Your task to perform on an android device: open wifi settings Image 0: 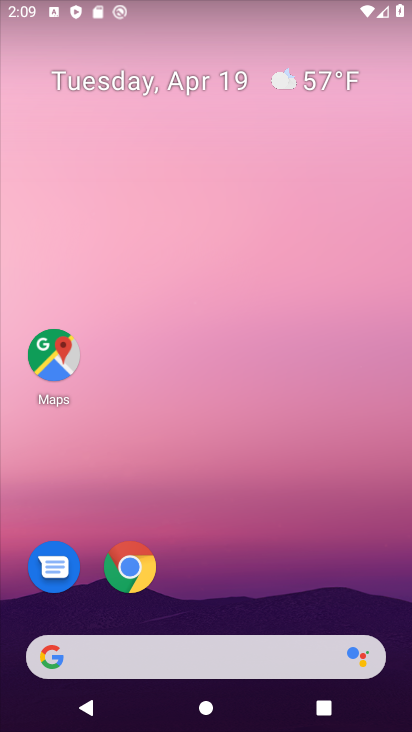
Step 0: drag from (342, 591) to (307, 70)
Your task to perform on an android device: open wifi settings Image 1: 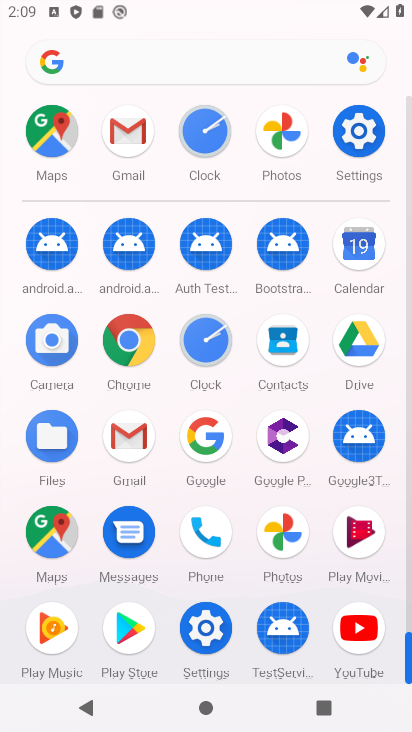
Step 1: click (205, 627)
Your task to perform on an android device: open wifi settings Image 2: 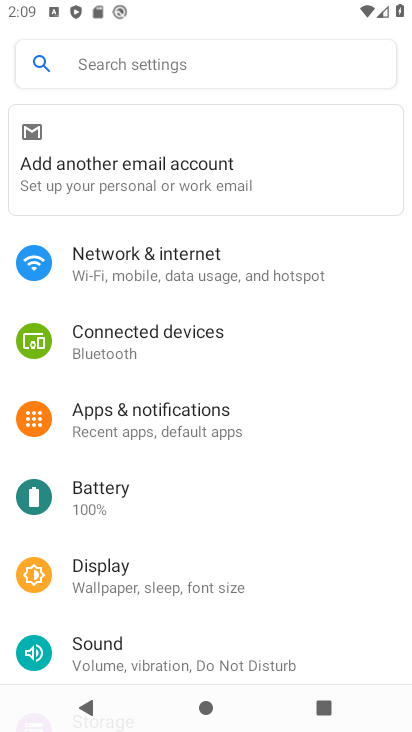
Step 2: click (115, 257)
Your task to perform on an android device: open wifi settings Image 3: 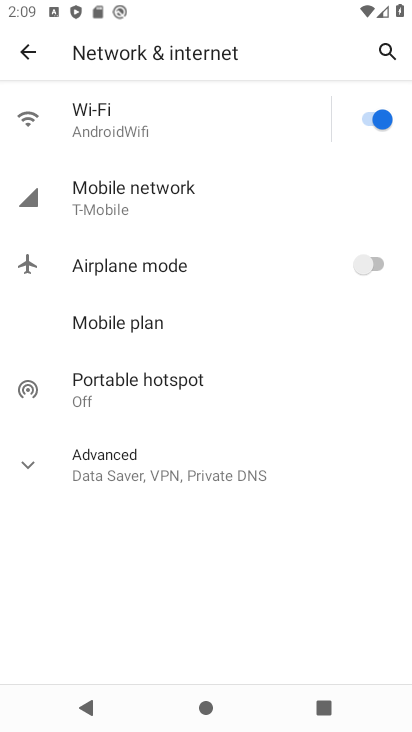
Step 3: click (89, 119)
Your task to perform on an android device: open wifi settings Image 4: 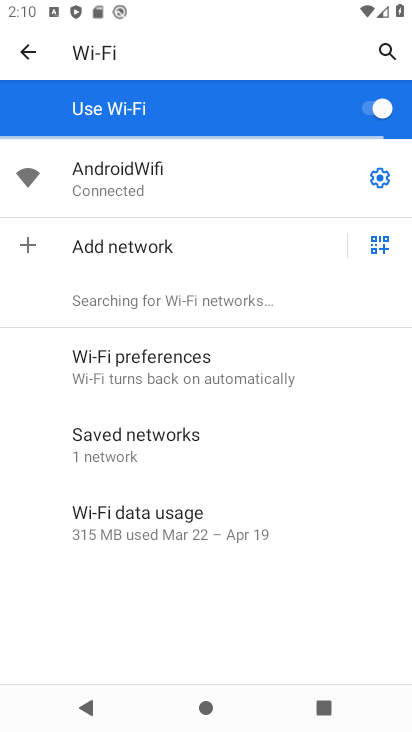
Step 4: click (377, 176)
Your task to perform on an android device: open wifi settings Image 5: 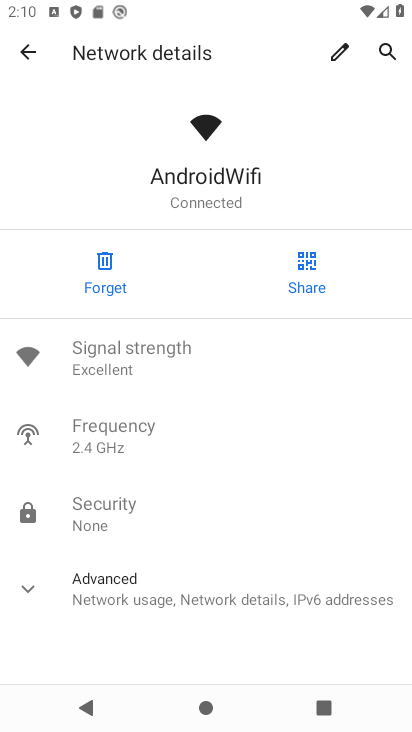
Step 5: drag from (224, 544) to (242, 159)
Your task to perform on an android device: open wifi settings Image 6: 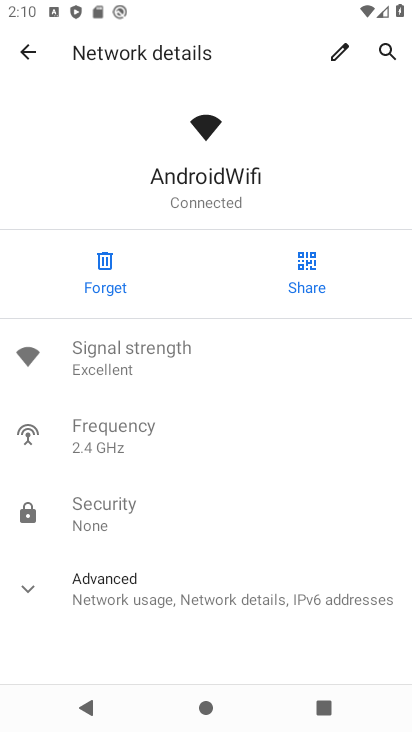
Step 6: click (24, 588)
Your task to perform on an android device: open wifi settings Image 7: 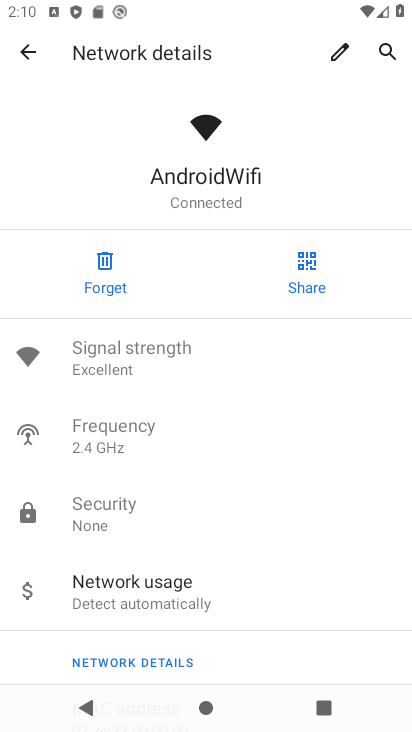
Step 7: task complete